Your task to perform on an android device: Open notification settings Image 0: 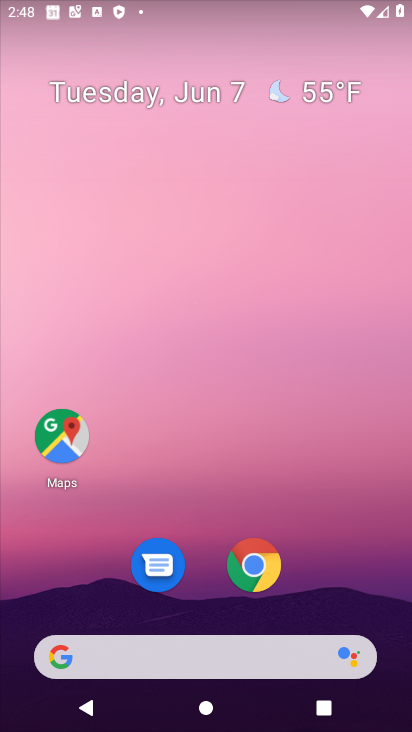
Step 0: drag from (270, 644) to (246, 117)
Your task to perform on an android device: Open notification settings Image 1: 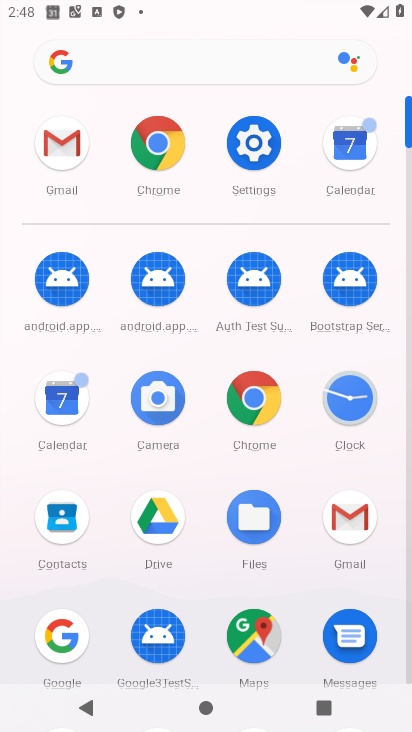
Step 1: click (260, 159)
Your task to perform on an android device: Open notification settings Image 2: 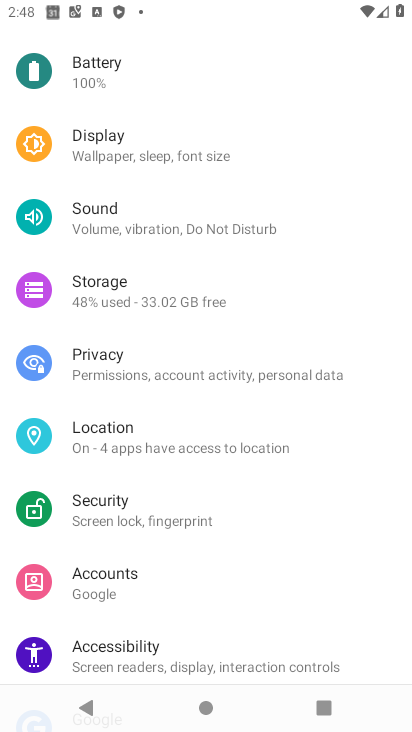
Step 2: drag from (135, 160) to (185, 581)
Your task to perform on an android device: Open notification settings Image 3: 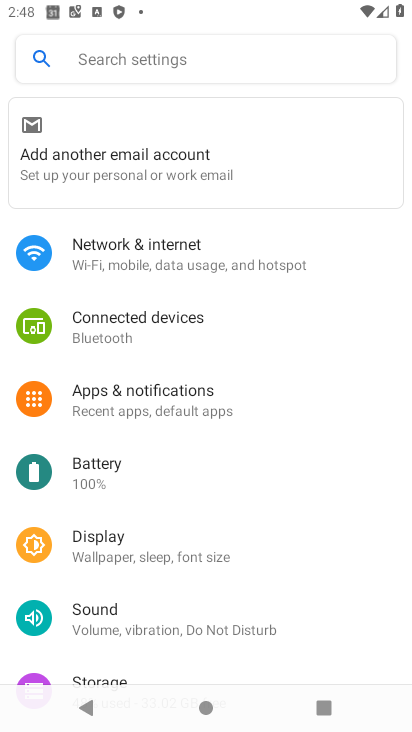
Step 3: click (180, 423)
Your task to perform on an android device: Open notification settings Image 4: 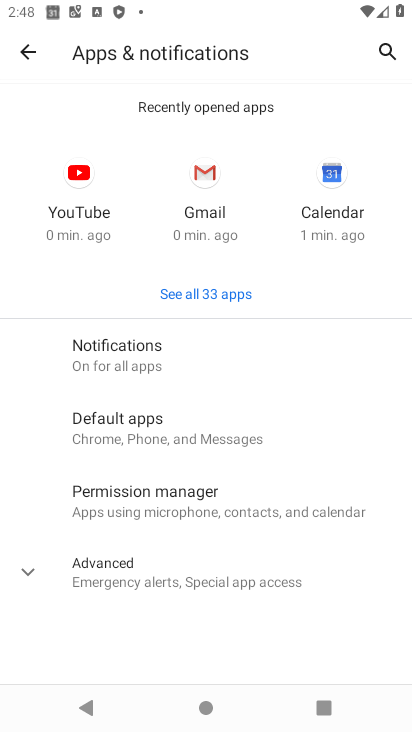
Step 4: task complete